Your task to perform on an android device: delete location history Image 0: 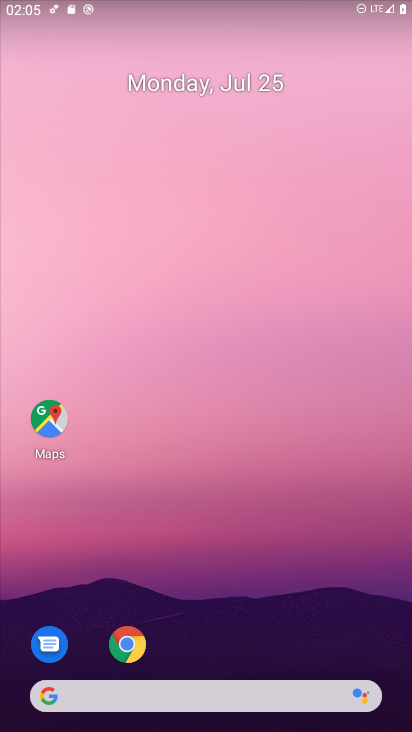
Step 0: drag from (241, 723) to (250, 286)
Your task to perform on an android device: delete location history Image 1: 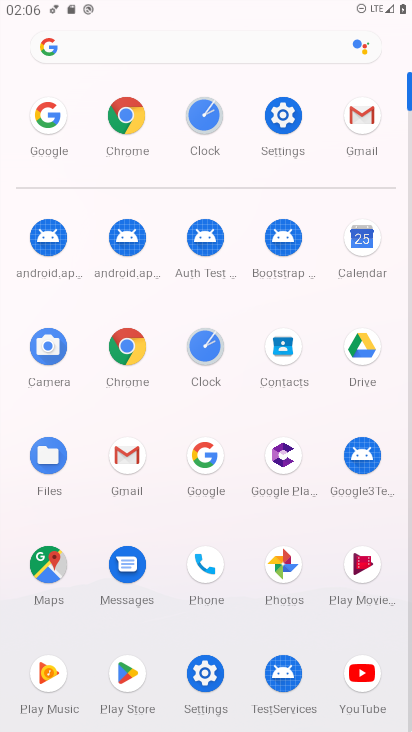
Step 1: click (49, 556)
Your task to perform on an android device: delete location history Image 2: 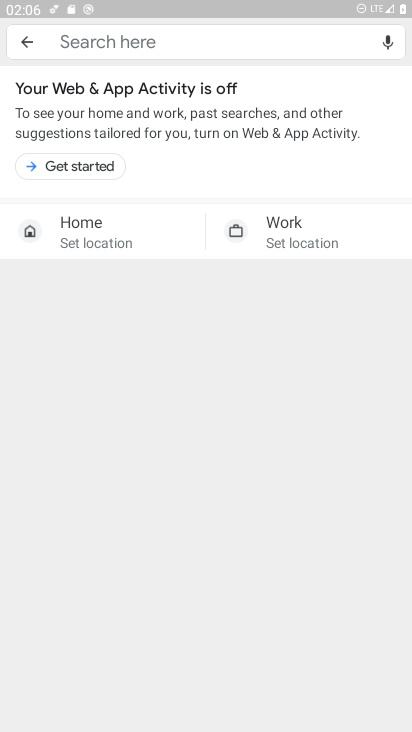
Step 2: click (22, 39)
Your task to perform on an android device: delete location history Image 3: 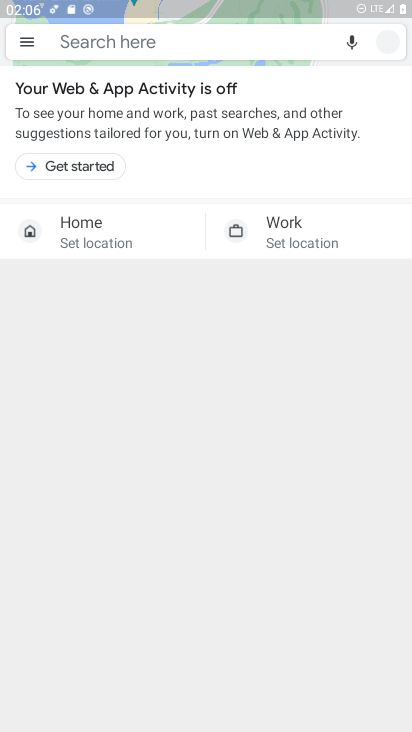
Step 3: click (28, 41)
Your task to perform on an android device: delete location history Image 4: 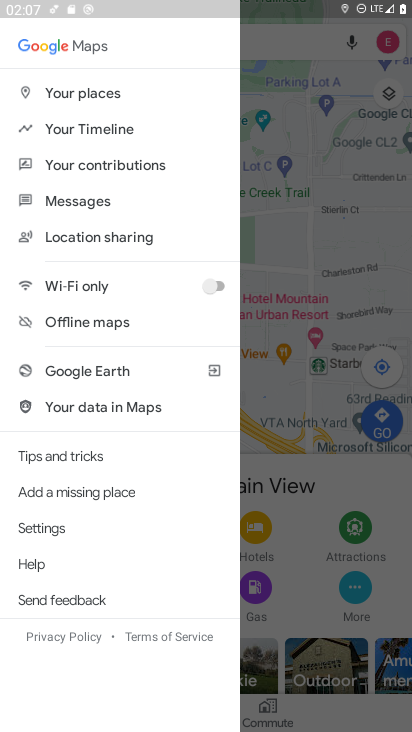
Step 4: click (79, 127)
Your task to perform on an android device: delete location history Image 5: 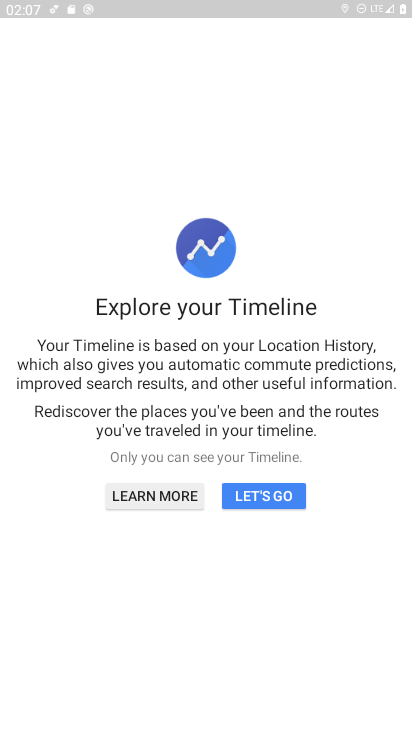
Step 5: press home button
Your task to perform on an android device: delete location history Image 6: 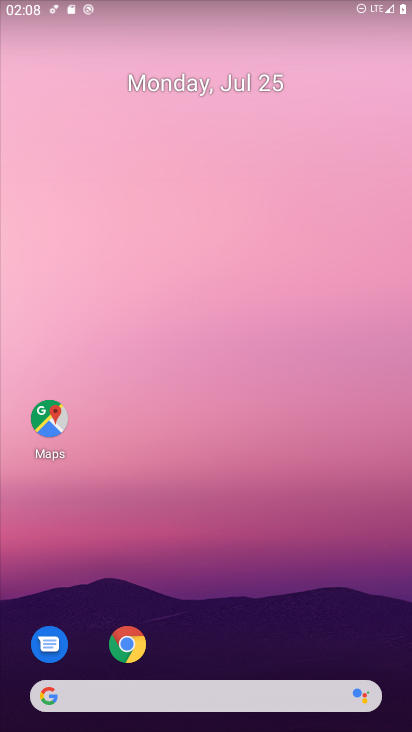
Step 6: drag from (201, 718) to (223, 127)
Your task to perform on an android device: delete location history Image 7: 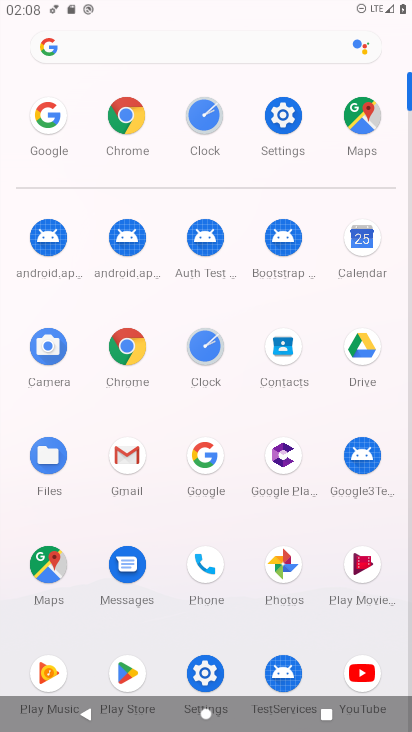
Step 7: click (45, 566)
Your task to perform on an android device: delete location history Image 8: 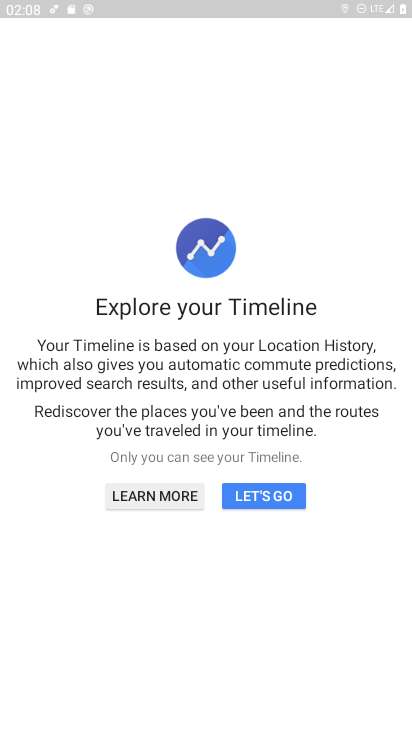
Step 8: click (260, 498)
Your task to perform on an android device: delete location history Image 9: 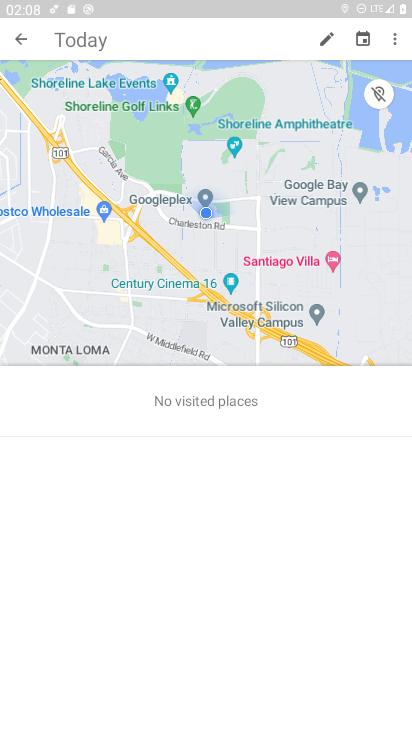
Step 9: click (394, 43)
Your task to perform on an android device: delete location history Image 10: 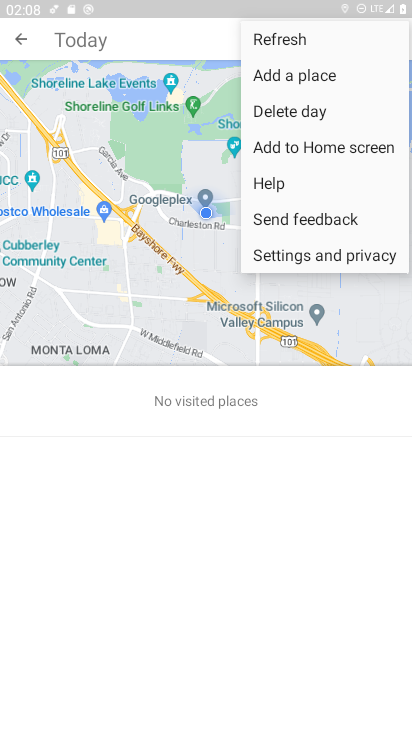
Step 10: click (324, 258)
Your task to perform on an android device: delete location history Image 11: 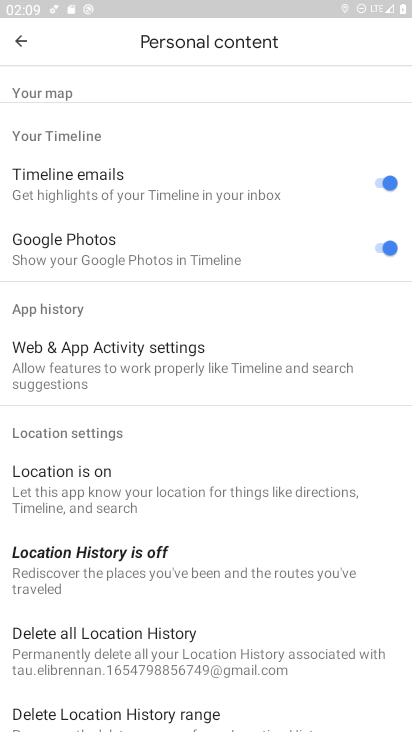
Step 11: click (101, 633)
Your task to perform on an android device: delete location history Image 12: 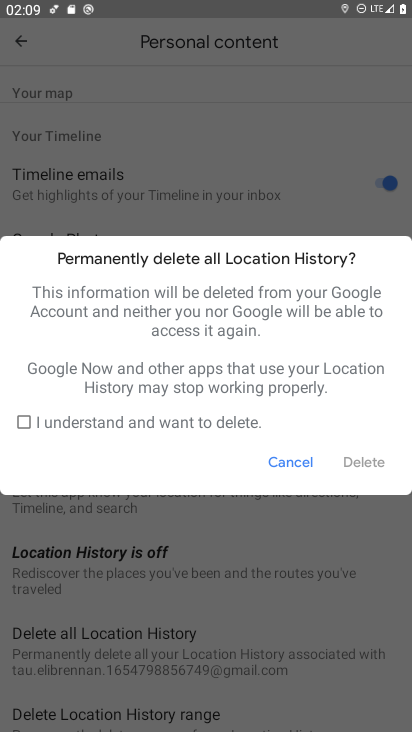
Step 12: click (24, 419)
Your task to perform on an android device: delete location history Image 13: 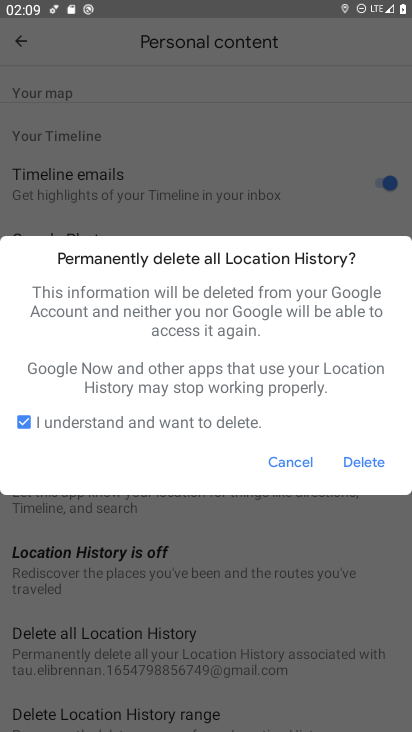
Step 13: click (365, 458)
Your task to perform on an android device: delete location history Image 14: 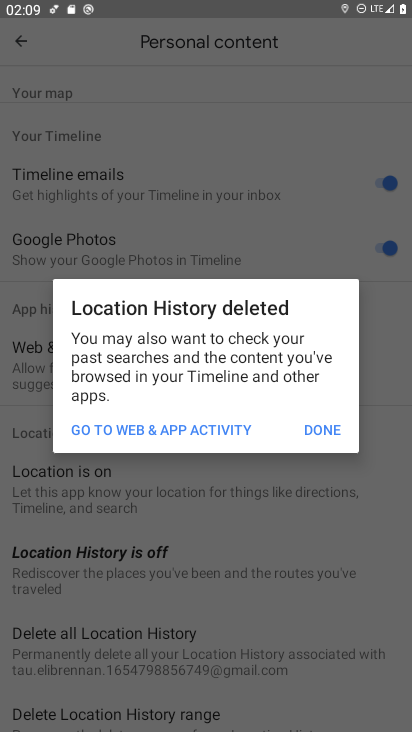
Step 14: click (329, 429)
Your task to perform on an android device: delete location history Image 15: 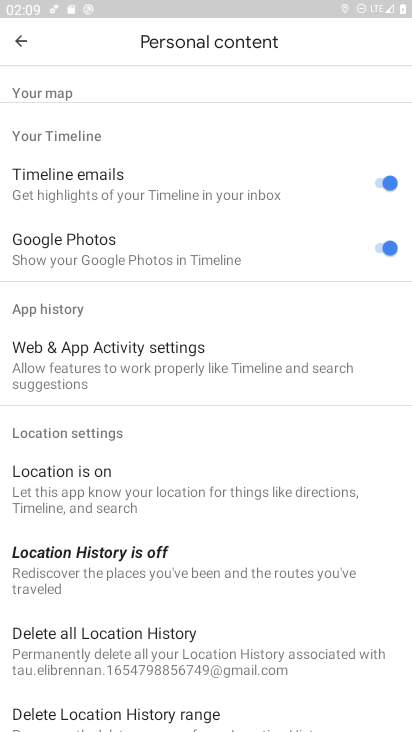
Step 15: task complete